Your task to perform on an android device: open the mobile data screen to see how much data has been used Image 0: 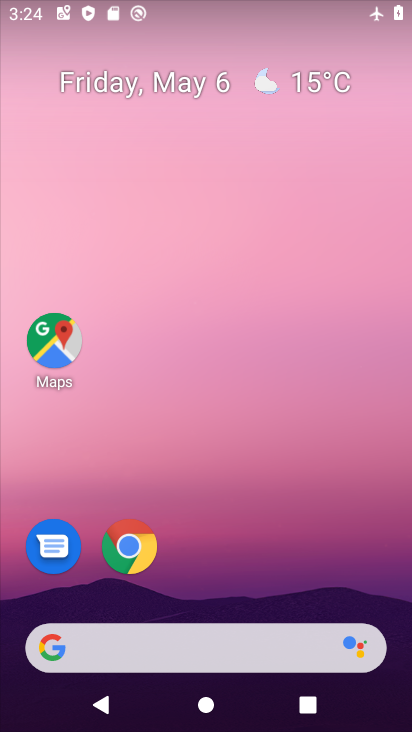
Step 0: drag from (238, 601) to (195, 156)
Your task to perform on an android device: open the mobile data screen to see how much data has been used Image 1: 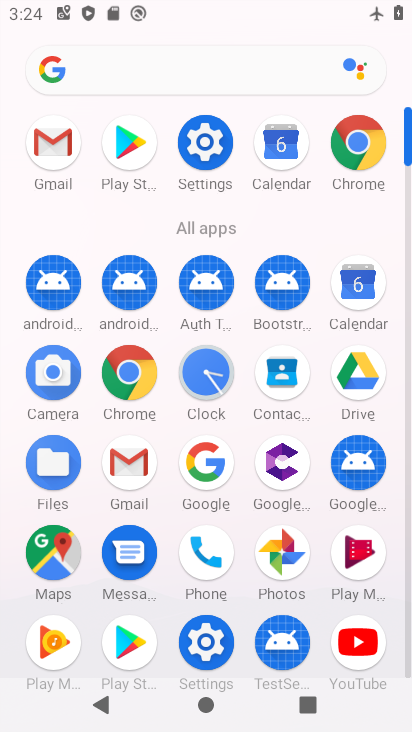
Step 1: click (202, 151)
Your task to perform on an android device: open the mobile data screen to see how much data has been used Image 2: 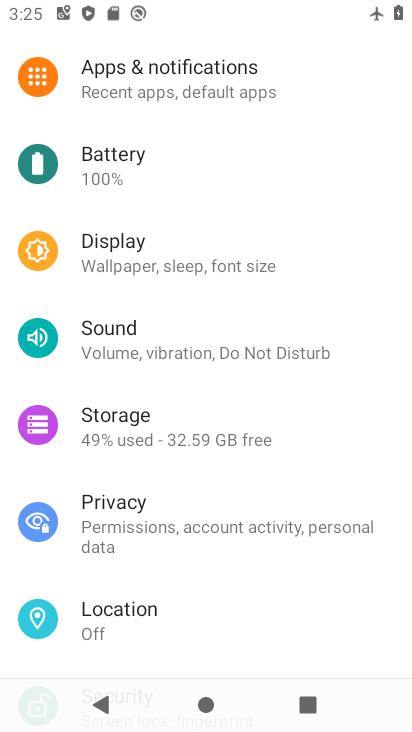
Step 2: click (221, 343)
Your task to perform on an android device: open the mobile data screen to see how much data has been used Image 3: 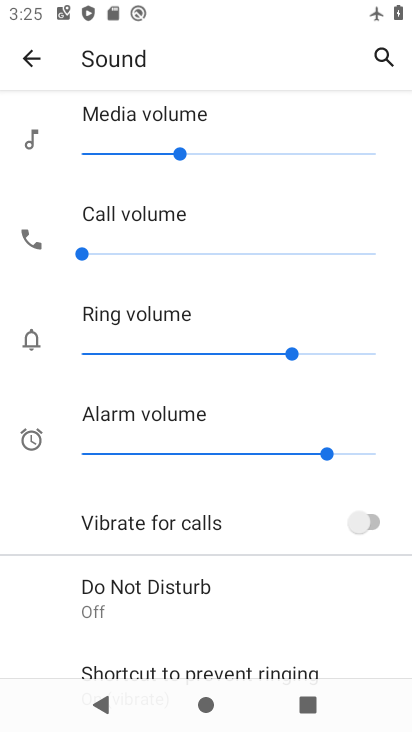
Step 3: click (29, 56)
Your task to perform on an android device: open the mobile data screen to see how much data has been used Image 4: 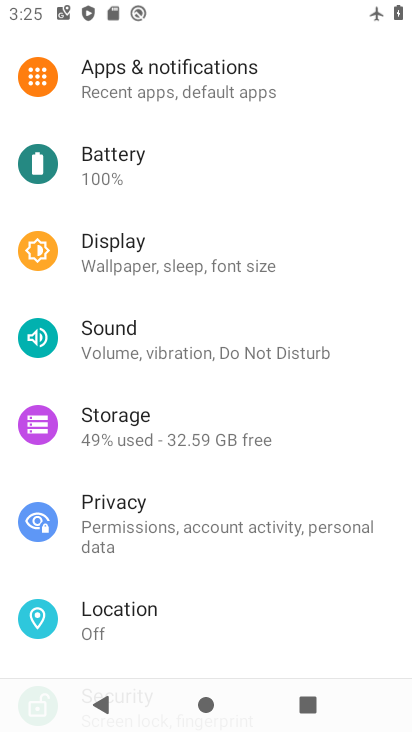
Step 4: drag from (156, 156) to (164, 679)
Your task to perform on an android device: open the mobile data screen to see how much data has been used Image 5: 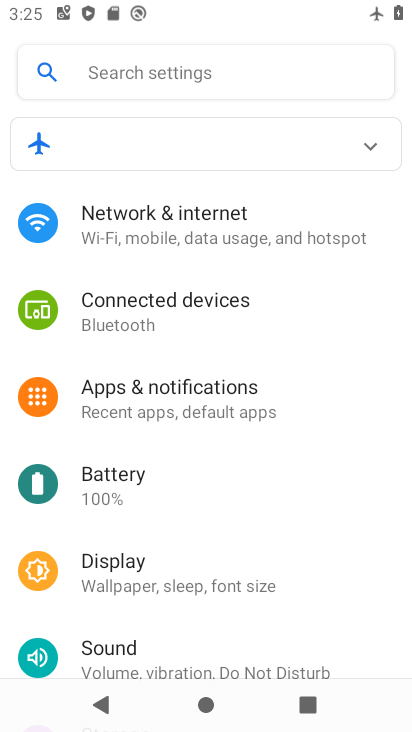
Step 5: click (243, 247)
Your task to perform on an android device: open the mobile data screen to see how much data has been used Image 6: 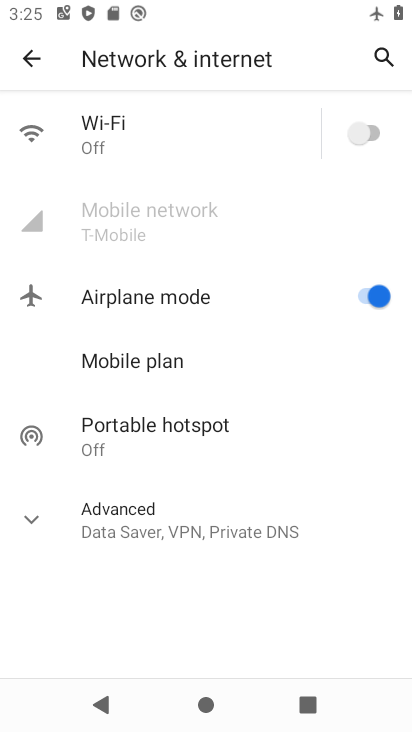
Step 6: task complete